Your task to perform on an android device: Open the calendar app, open the side menu, and click the "Day" option Image 0: 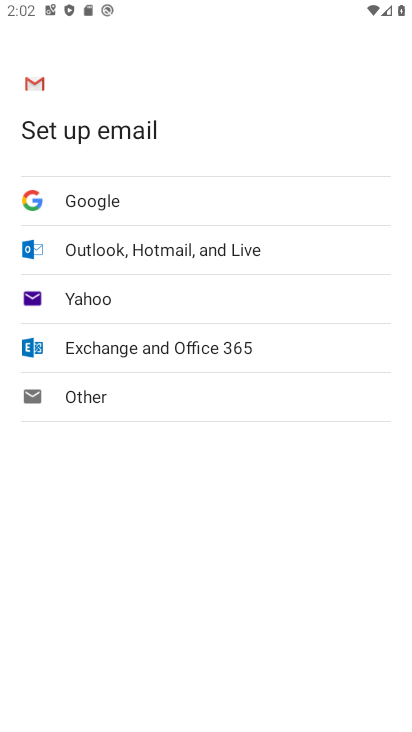
Step 0: press home button
Your task to perform on an android device: Open the calendar app, open the side menu, and click the "Day" option Image 1: 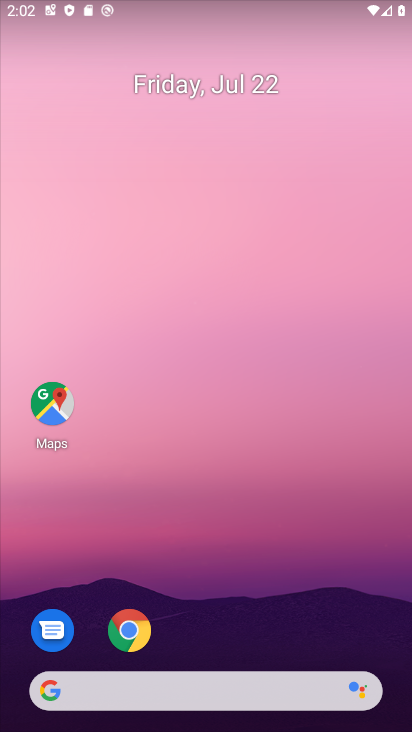
Step 1: drag from (199, 659) to (120, 38)
Your task to perform on an android device: Open the calendar app, open the side menu, and click the "Day" option Image 2: 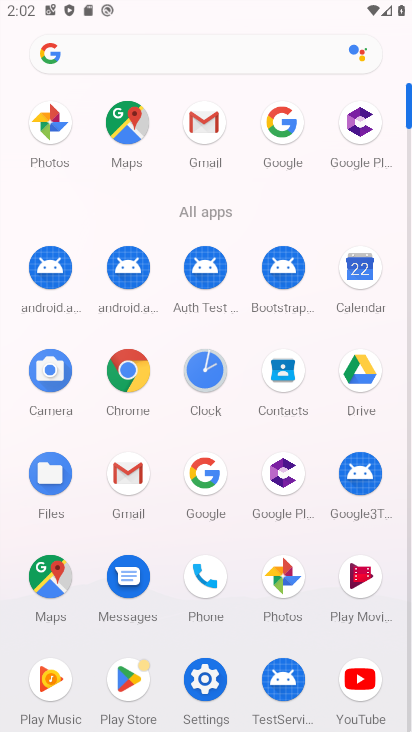
Step 2: click (363, 283)
Your task to perform on an android device: Open the calendar app, open the side menu, and click the "Day" option Image 3: 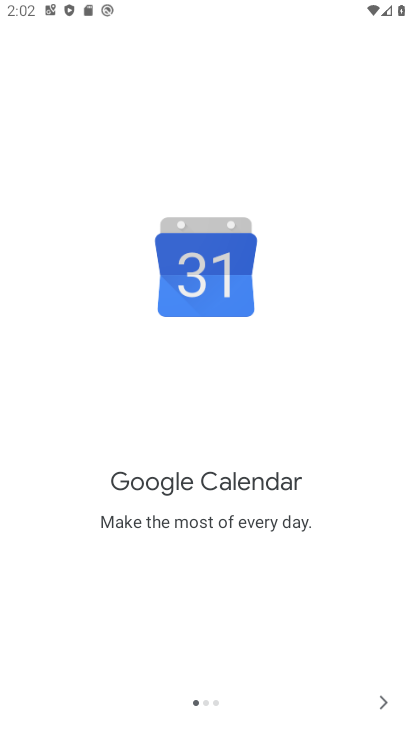
Step 3: click (385, 696)
Your task to perform on an android device: Open the calendar app, open the side menu, and click the "Day" option Image 4: 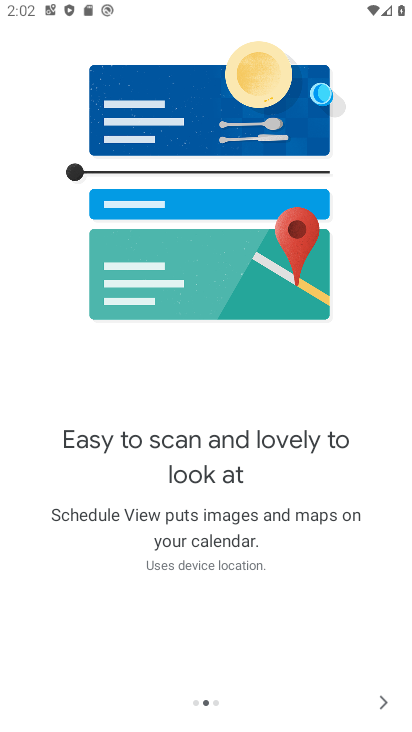
Step 4: click (387, 696)
Your task to perform on an android device: Open the calendar app, open the side menu, and click the "Day" option Image 5: 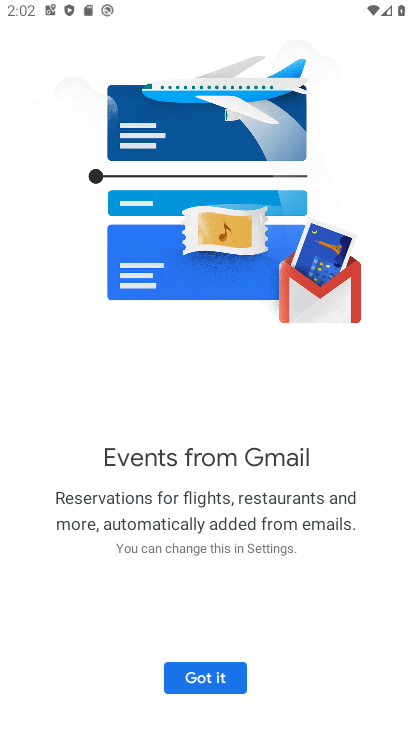
Step 5: click (217, 675)
Your task to perform on an android device: Open the calendar app, open the side menu, and click the "Day" option Image 6: 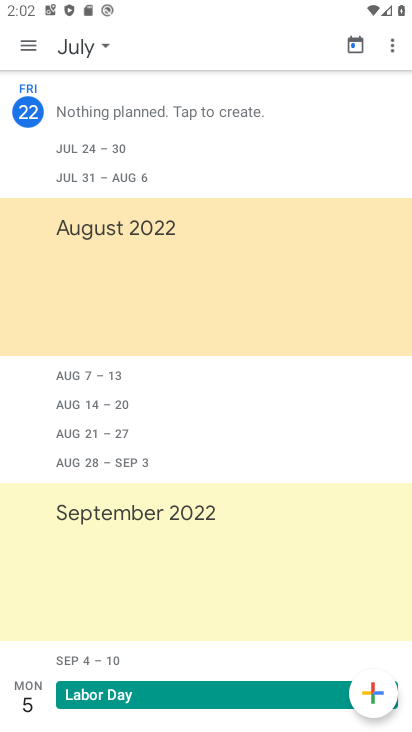
Step 6: click (29, 52)
Your task to perform on an android device: Open the calendar app, open the side menu, and click the "Day" option Image 7: 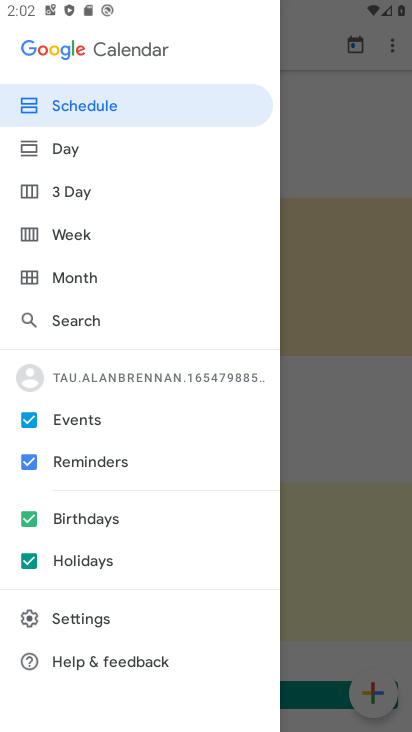
Step 7: click (47, 139)
Your task to perform on an android device: Open the calendar app, open the side menu, and click the "Day" option Image 8: 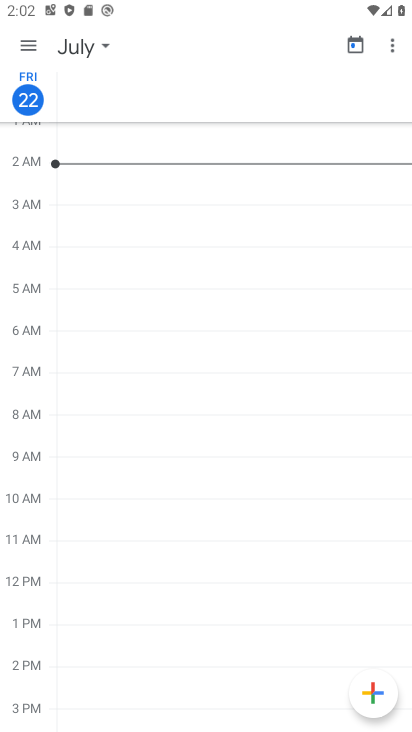
Step 8: task complete